Your task to perform on an android device: Search for Italian restaurants on Maps Image 0: 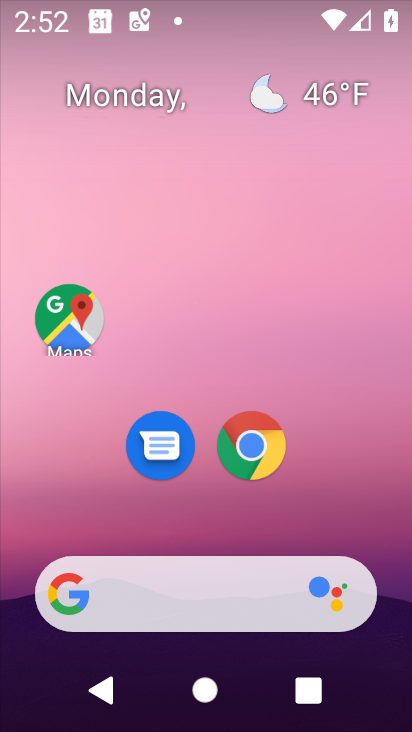
Step 0: click (77, 330)
Your task to perform on an android device: Search for Italian restaurants on Maps Image 1: 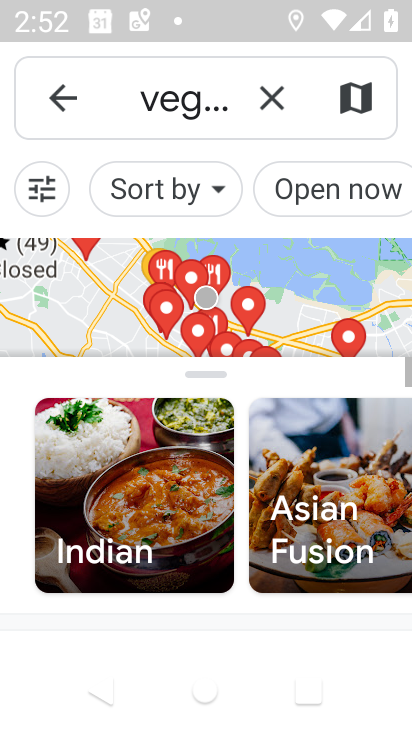
Step 1: click (267, 96)
Your task to perform on an android device: Search for Italian restaurants on Maps Image 2: 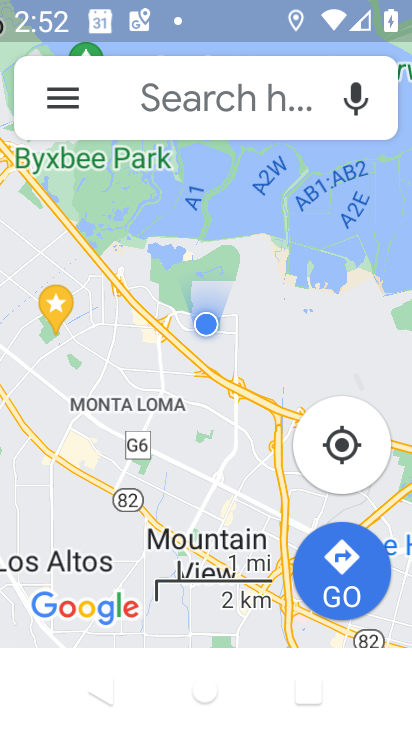
Step 2: click (189, 97)
Your task to perform on an android device: Search for Italian restaurants on Maps Image 3: 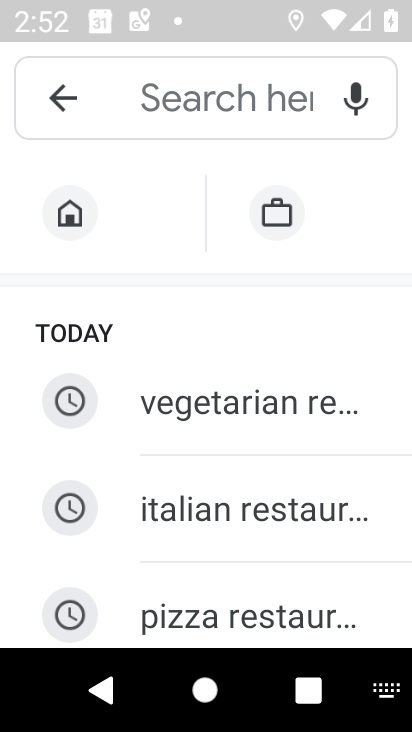
Step 3: click (238, 506)
Your task to perform on an android device: Search for Italian restaurants on Maps Image 4: 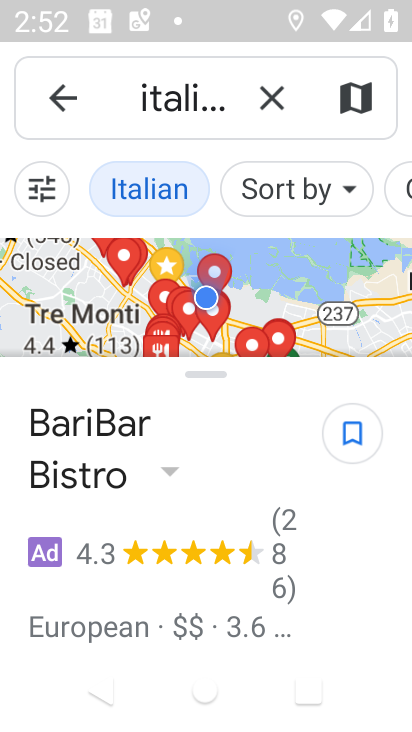
Step 4: task complete